Your task to perform on an android device: Open the phone app and click the voicemail tab. Image 0: 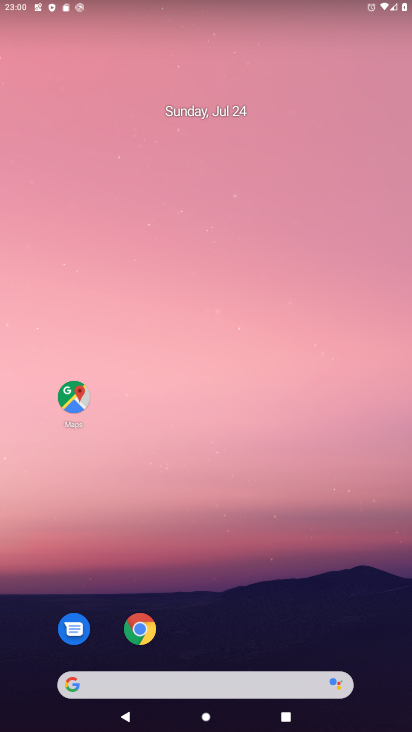
Step 0: drag from (207, 635) to (256, 223)
Your task to perform on an android device: Open the phone app and click the voicemail tab. Image 1: 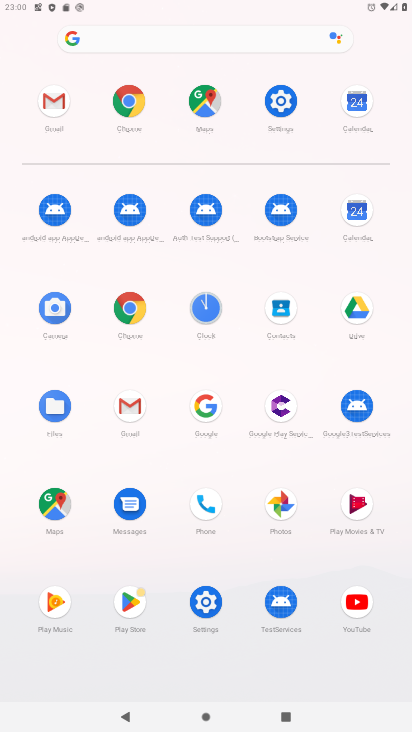
Step 1: click (198, 507)
Your task to perform on an android device: Open the phone app and click the voicemail tab. Image 2: 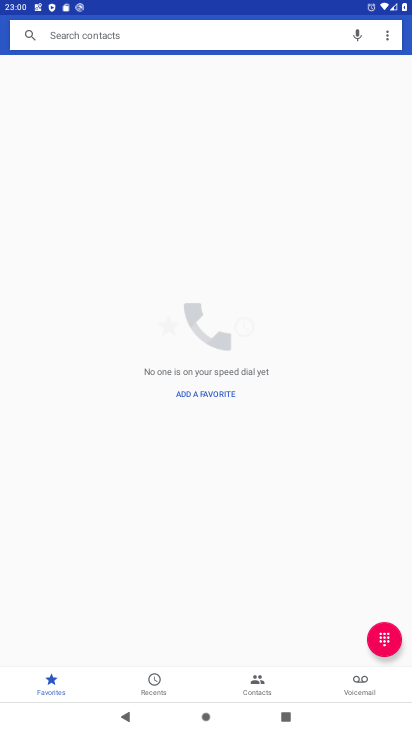
Step 2: drag from (178, 615) to (230, 352)
Your task to perform on an android device: Open the phone app and click the voicemail tab. Image 3: 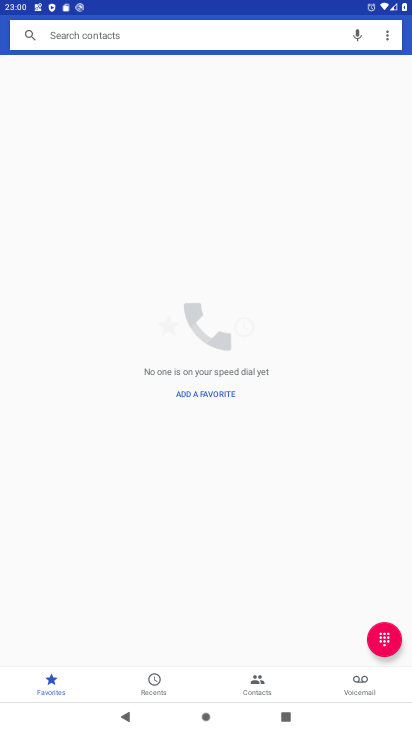
Step 3: click (347, 688)
Your task to perform on an android device: Open the phone app and click the voicemail tab. Image 4: 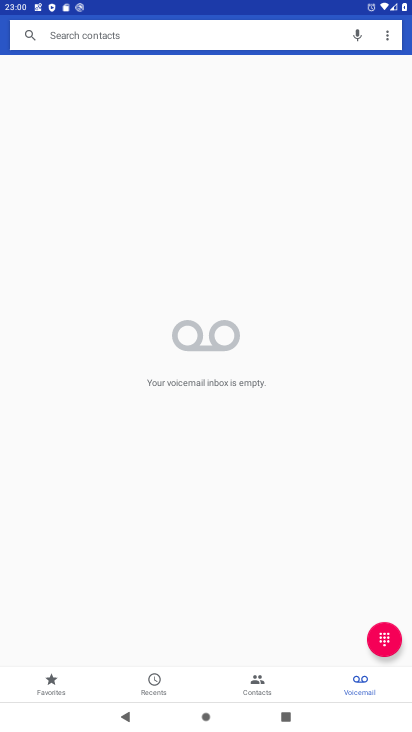
Step 4: task complete